Your task to perform on an android device: Go to wifi settings Image 0: 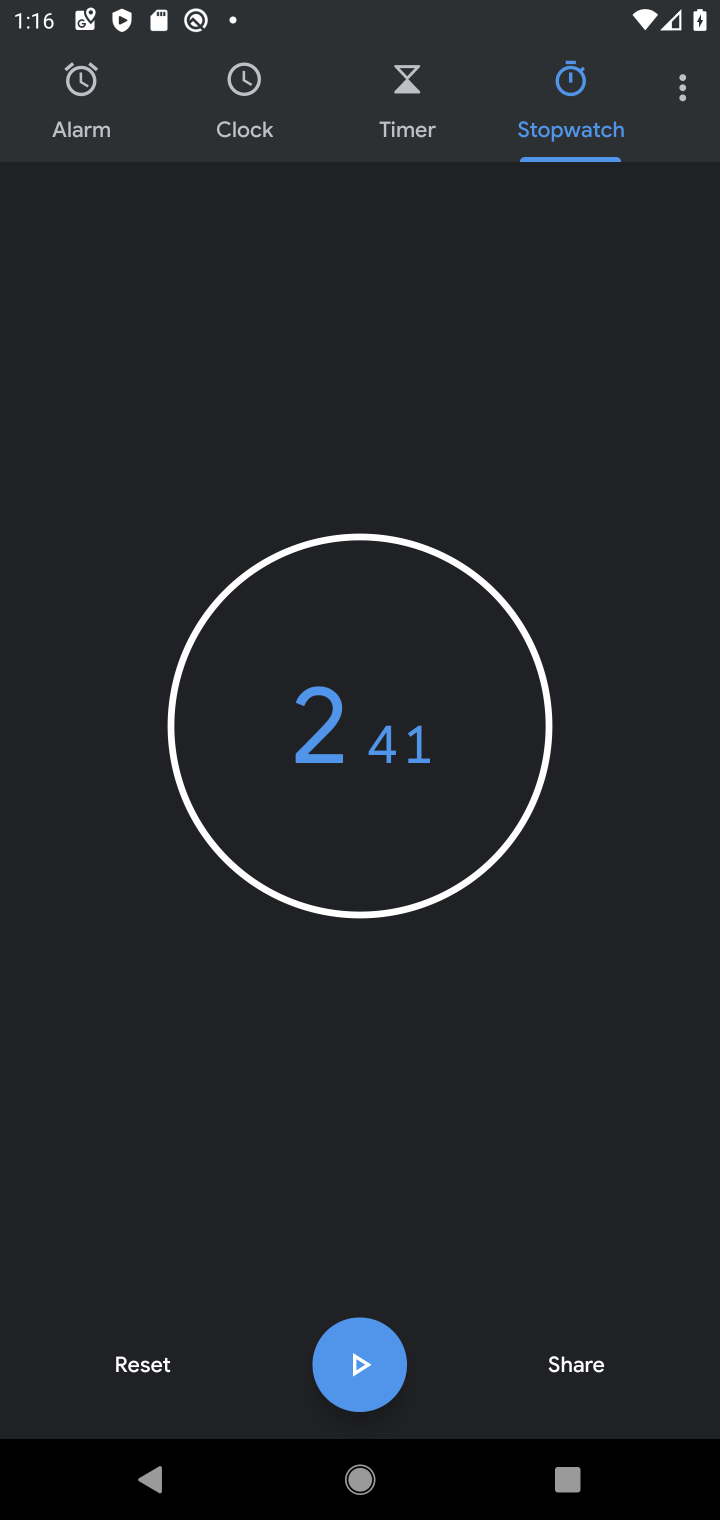
Step 0: press home button
Your task to perform on an android device: Go to wifi settings Image 1: 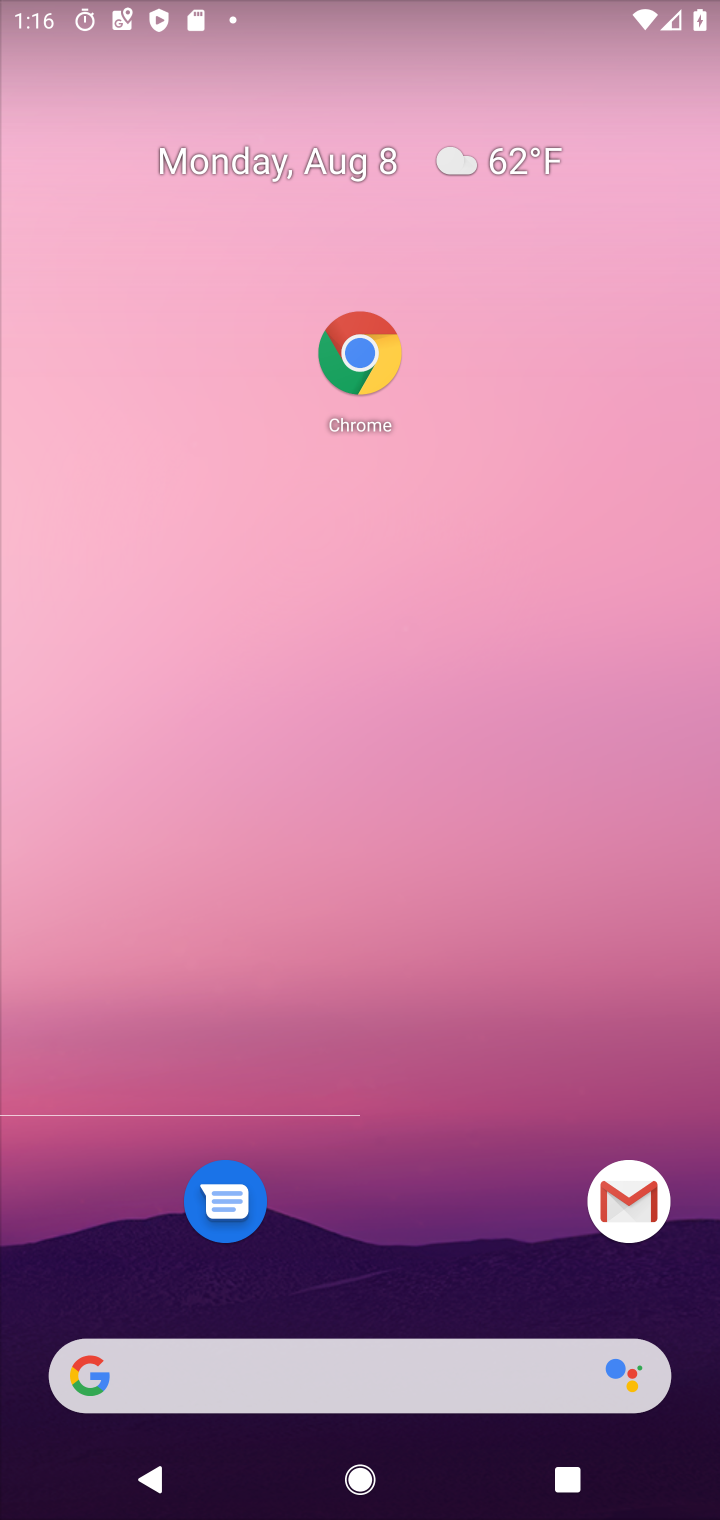
Step 1: drag from (489, 1423) to (452, 401)
Your task to perform on an android device: Go to wifi settings Image 2: 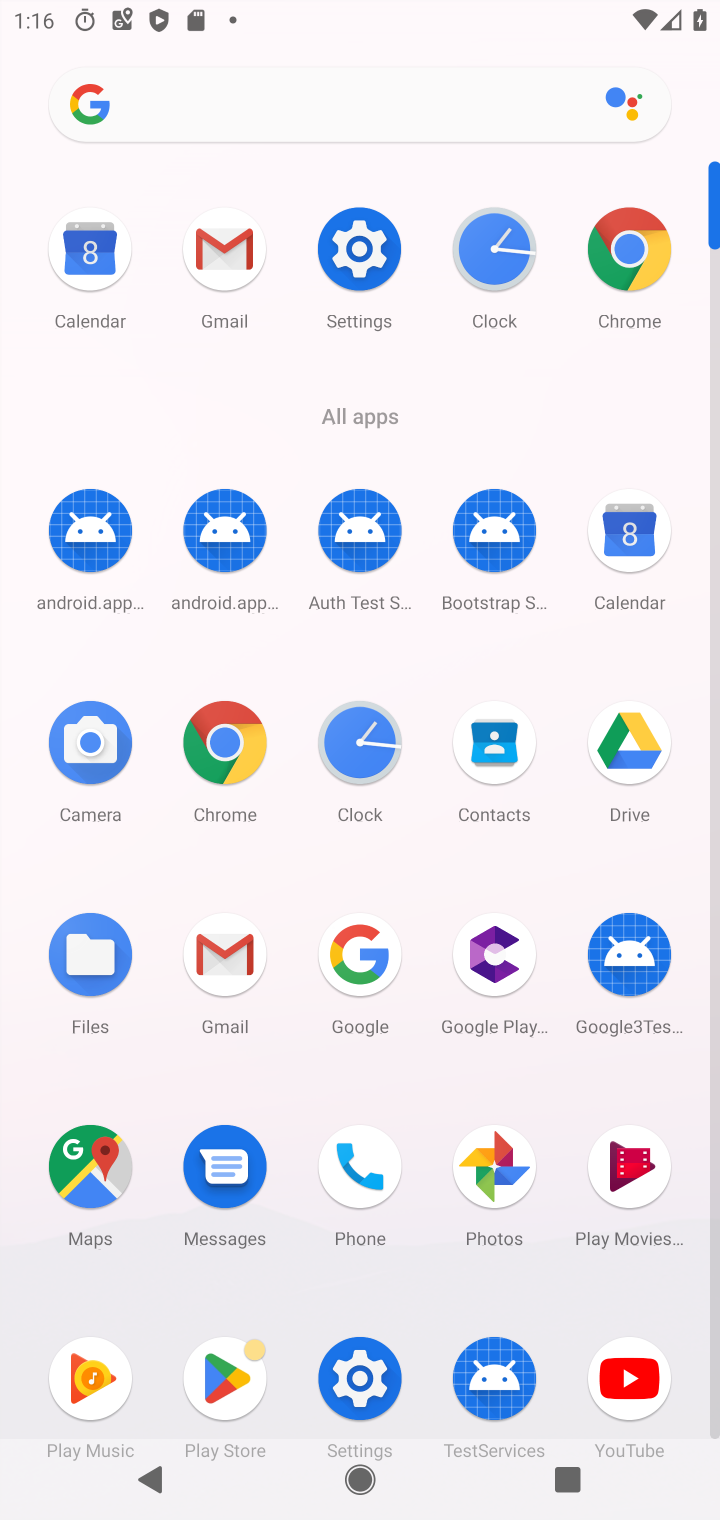
Step 2: click (351, 278)
Your task to perform on an android device: Go to wifi settings Image 3: 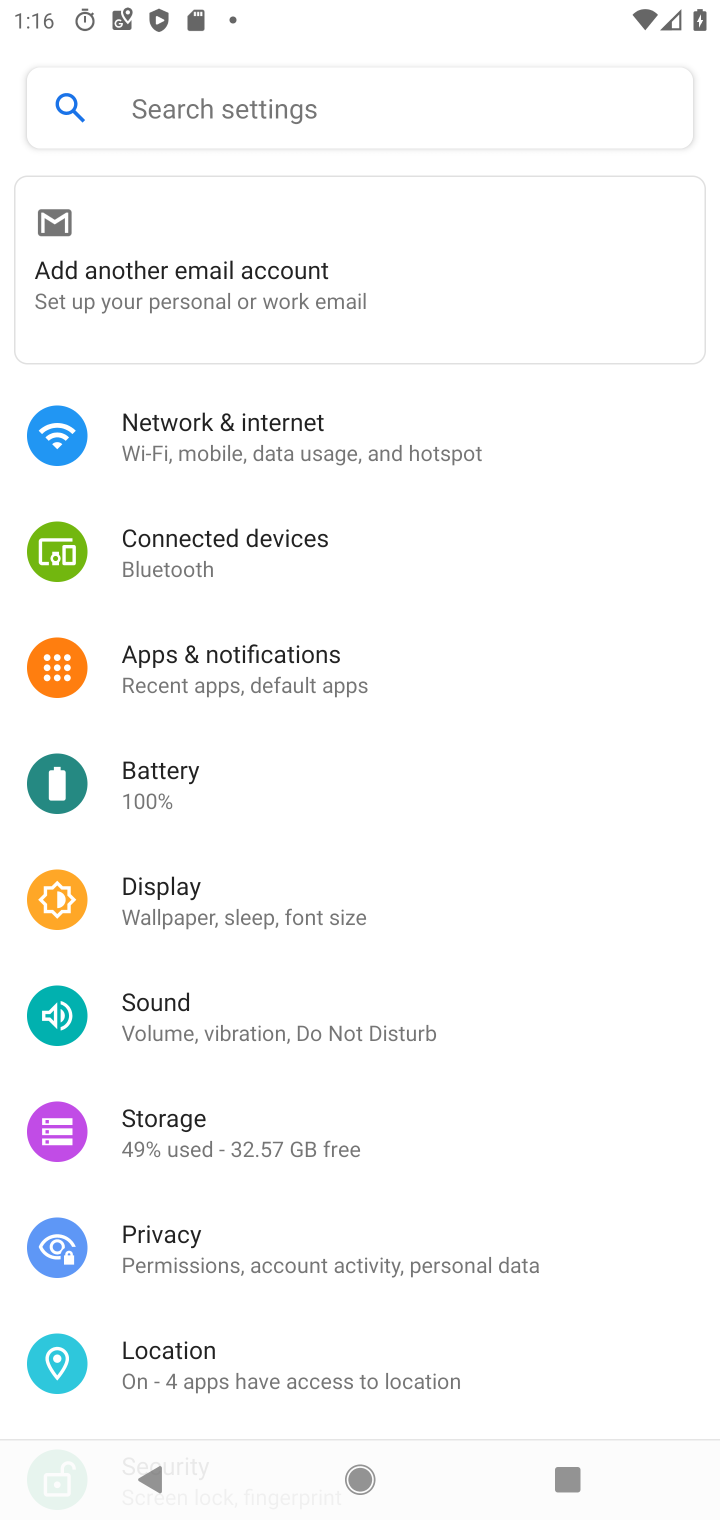
Step 3: click (243, 438)
Your task to perform on an android device: Go to wifi settings Image 4: 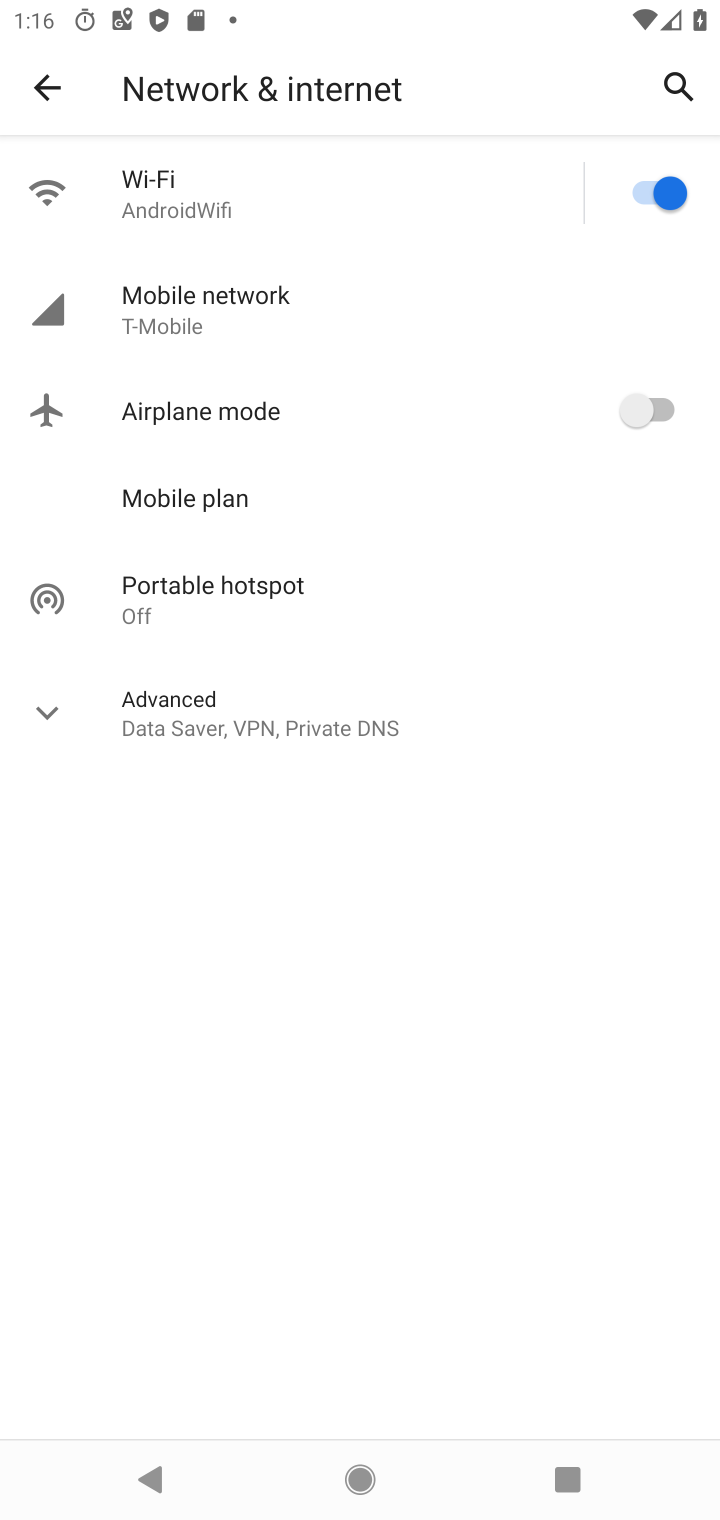
Step 4: click (254, 209)
Your task to perform on an android device: Go to wifi settings Image 5: 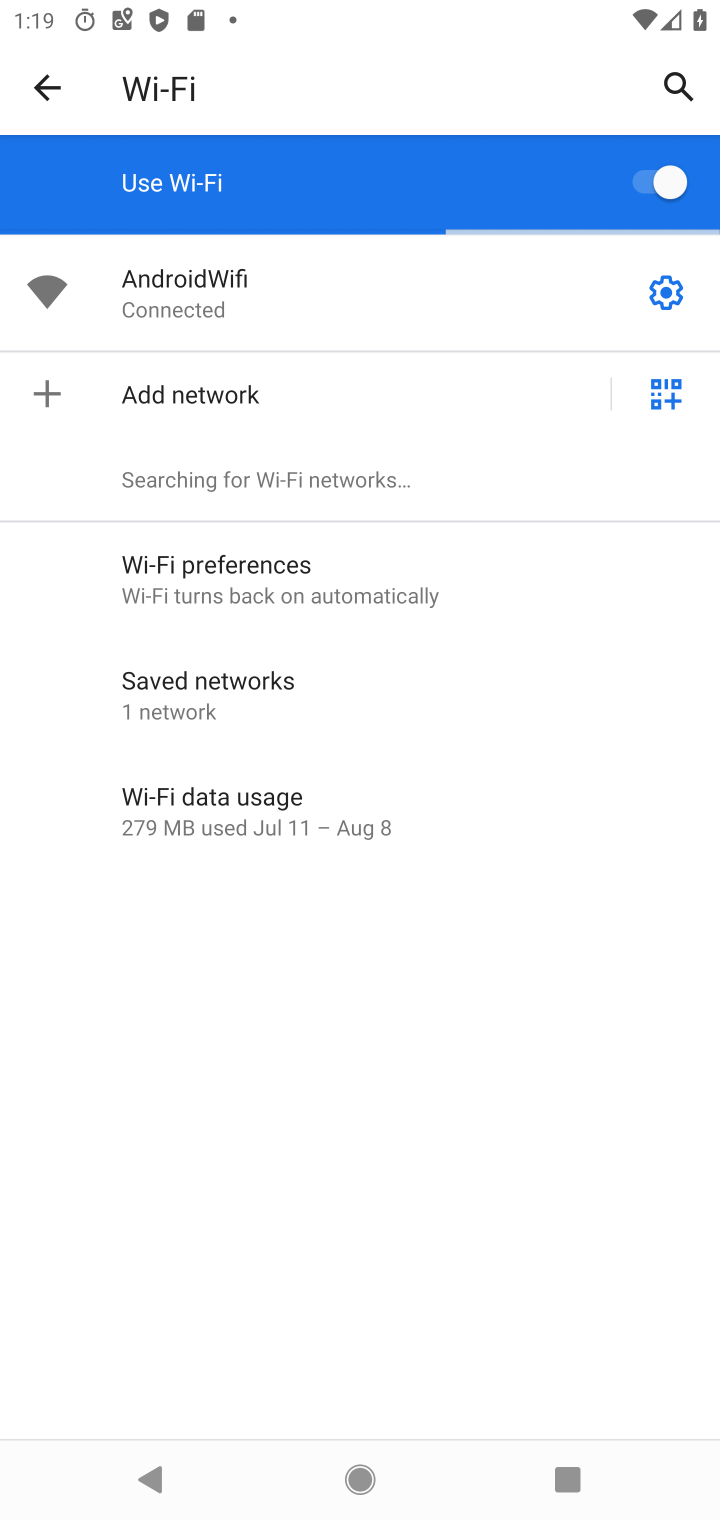
Step 5: task complete